Your task to perform on an android device: Open the Play Movies app and select the watchlist tab. Image 0: 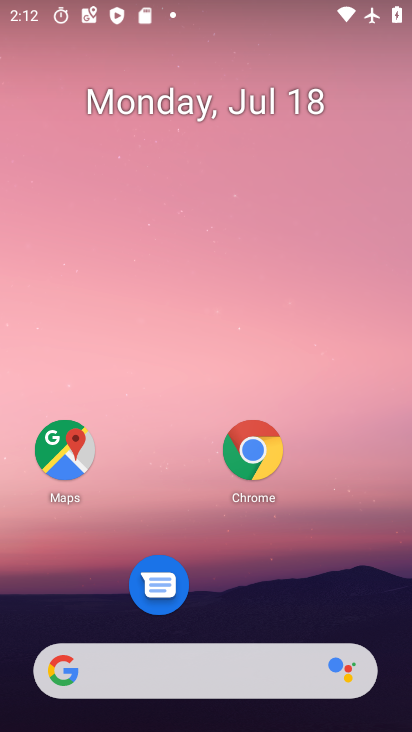
Step 0: press home button
Your task to perform on an android device: Open the Play Movies app and select the watchlist tab. Image 1: 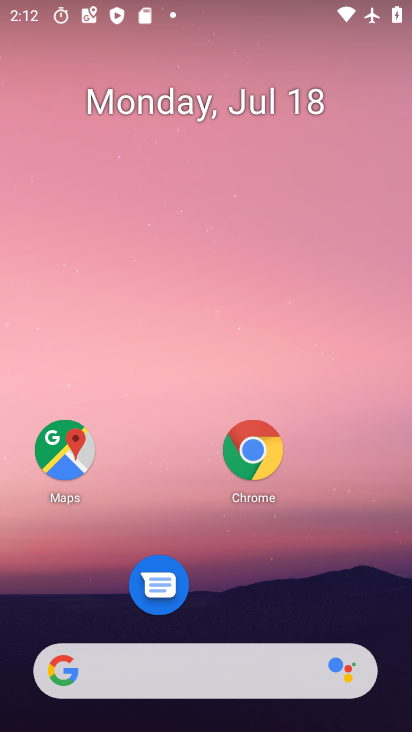
Step 1: drag from (219, 681) to (310, 126)
Your task to perform on an android device: Open the Play Movies app and select the watchlist tab. Image 2: 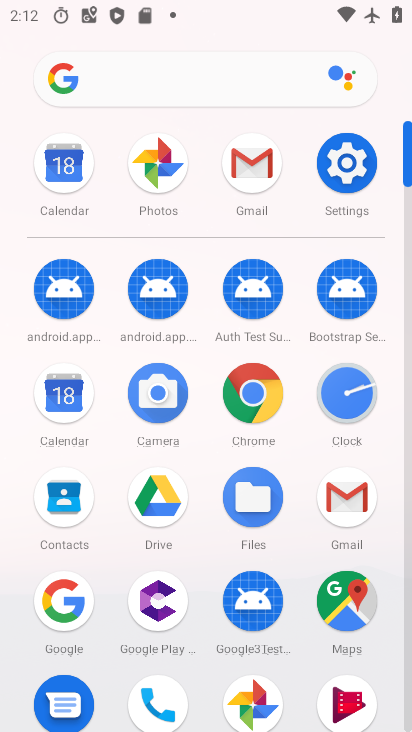
Step 2: click (347, 688)
Your task to perform on an android device: Open the Play Movies app and select the watchlist tab. Image 3: 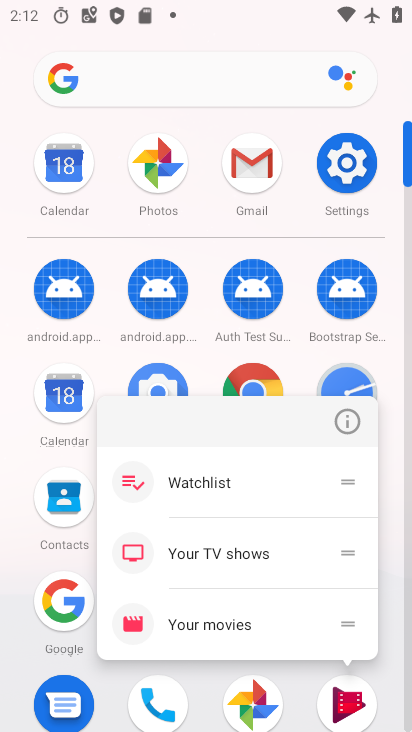
Step 3: click (347, 694)
Your task to perform on an android device: Open the Play Movies app and select the watchlist tab. Image 4: 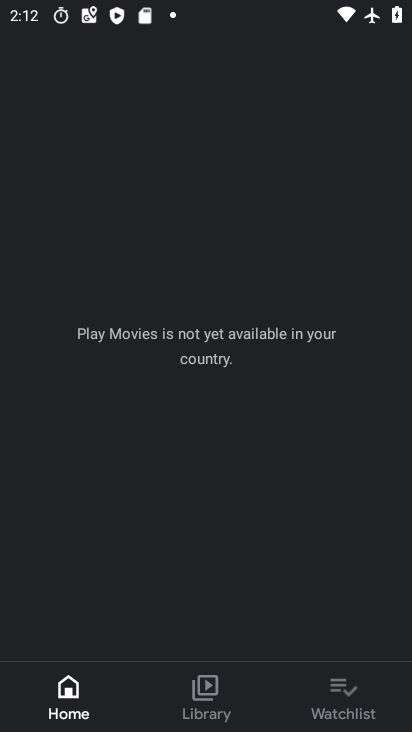
Step 4: click (333, 704)
Your task to perform on an android device: Open the Play Movies app and select the watchlist tab. Image 5: 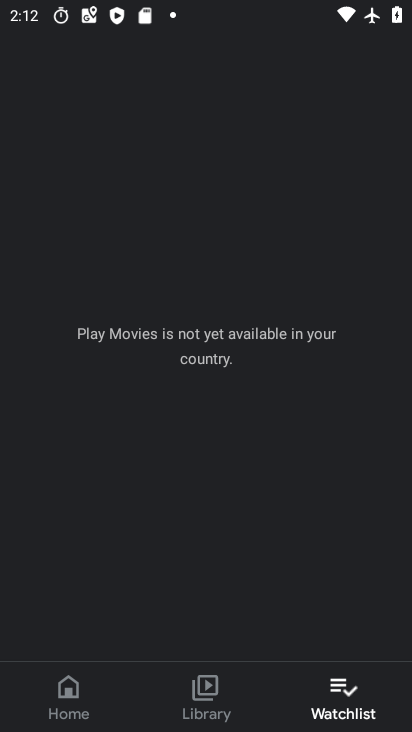
Step 5: task complete